Your task to perform on an android device: turn off location Image 0: 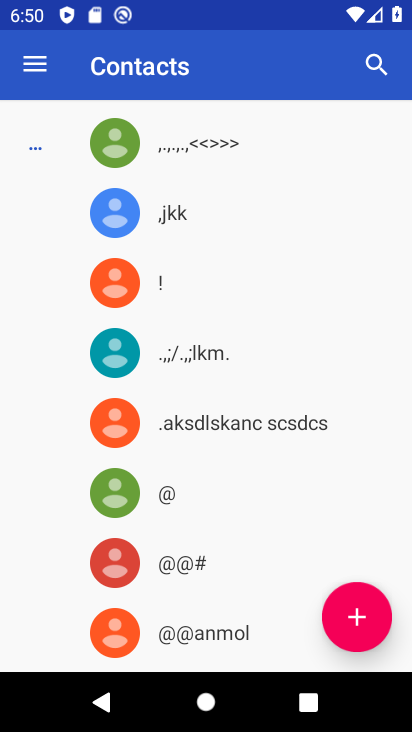
Step 0: press home button
Your task to perform on an android device: turn off location Image 1: 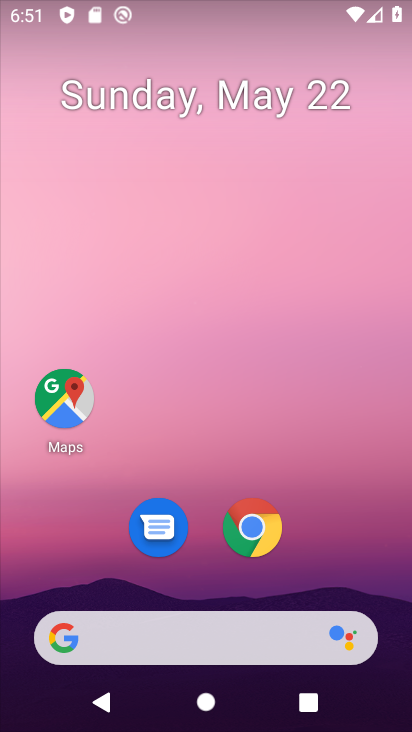
Step 1: drag from (359, 484) to (346, 45)
Your task to perform on an android device: turn off location Image 2: 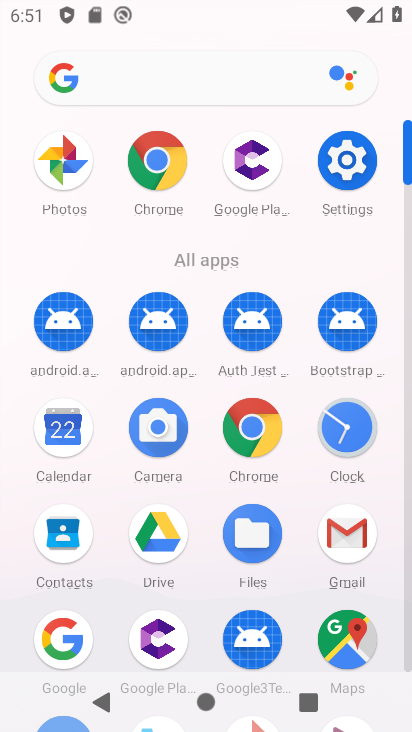
Step 2: click (363, 165)
Your task to perform on an android device: turn off location Image 3: 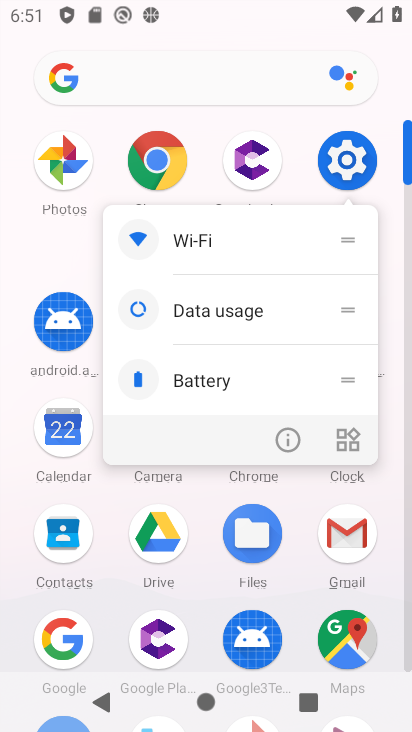
Step 3: click (363, 165)
Your task to perform on an android device: turn off location Image 4: 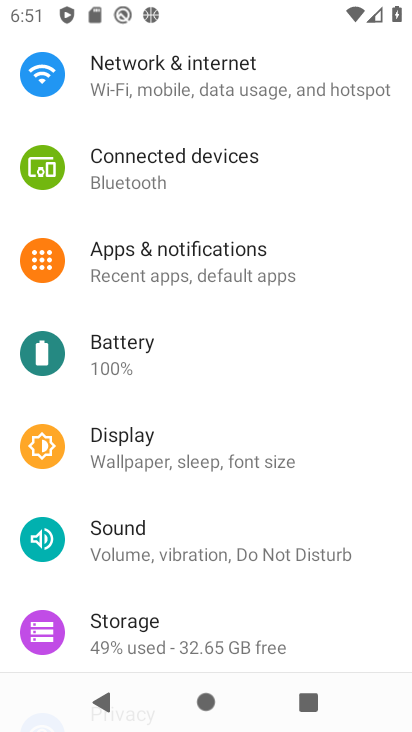
Step 4: drag from (149, 619) to (159, 232)
Your task to perform on an android device: turn off location Image 5: 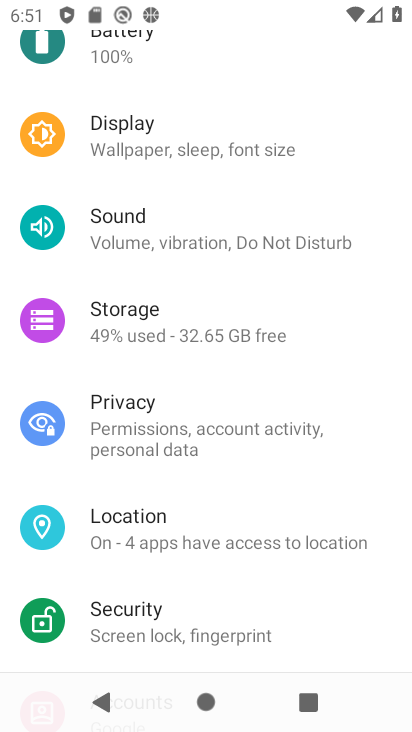
Step 5: click (119, 507)
Your task to perform on an android device: turn off location Image 6: 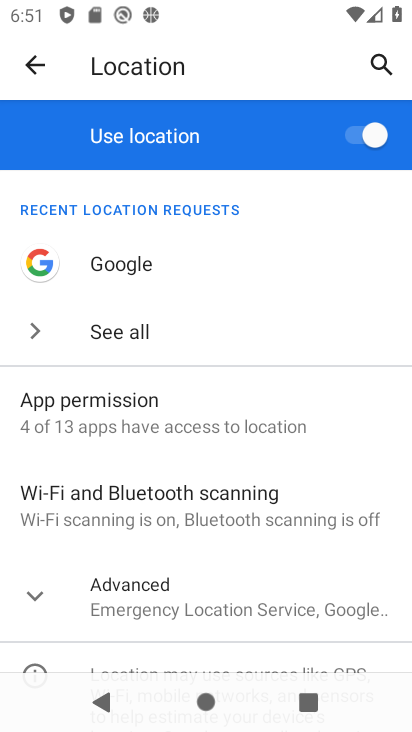
Step 6: click (369, 138)
Your task to perform on an android device: turn off location Image 7: 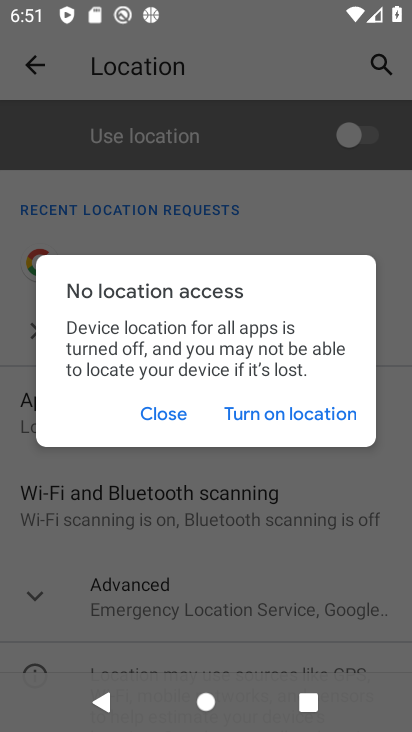
Step 7: task complete